Your task to perform on an android device: toggle improve location accuracy Image 0: 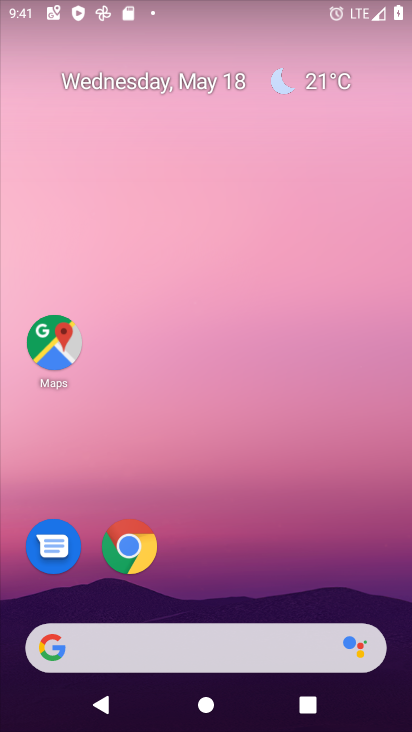
Step 0: drag from (402, 612) to (336, 81)
Your task to perform on an android device: toggle improve location accuracy Image 1: 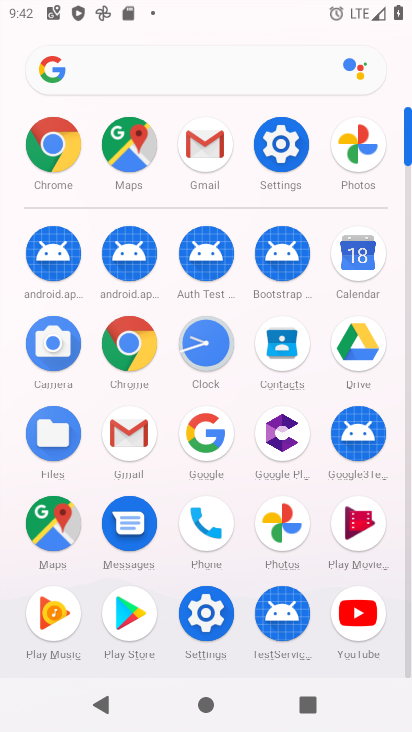
Step 1: click (197, 621)
Your task to perform on an android device: toggle improve location accuracy Image 2: 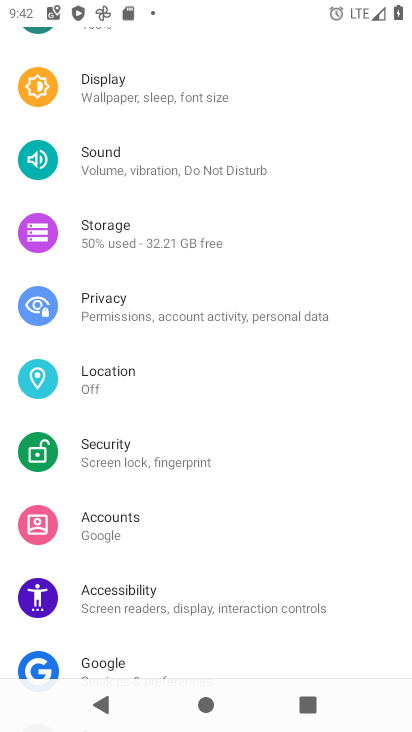
Step 2: click (173, 377)
Your task to perform on an android device: toggle improve location accuracy Image 3: 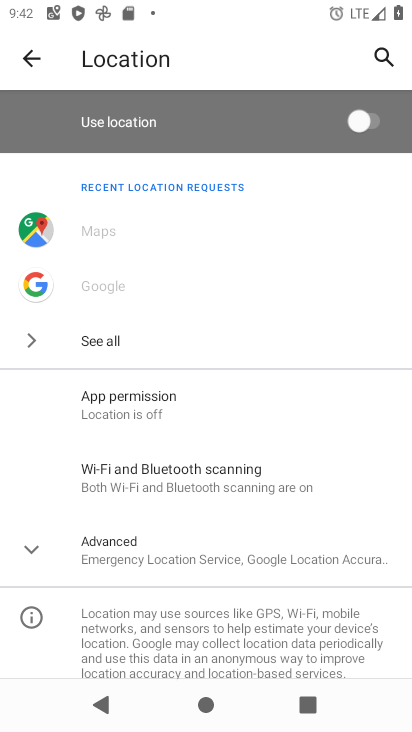
Step 3: click (145, 544)
Your task to perform on an android device: toggle improve location accuracy Image 4: 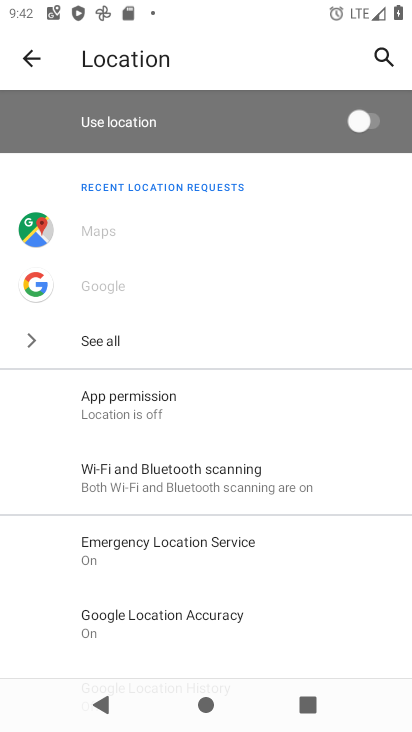
Step 4: click (152, 629)
Your task to perform on an android device: toggle improve location accuracy Image 5: 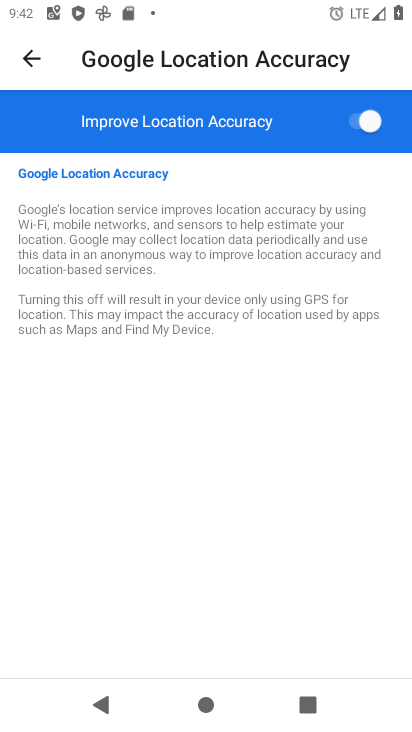
Step 5: click (344, 125)
Your task to perform on an android device: toggle improve location accuracy Image 6: 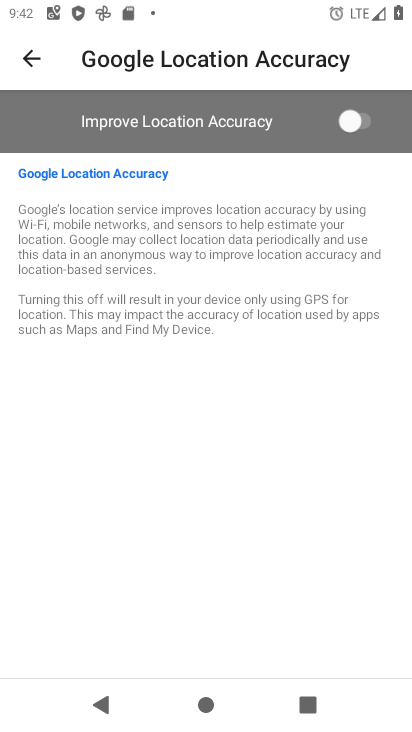
Step 6: task complete